Your task to perform on an android device: toggle wifi Image 0: 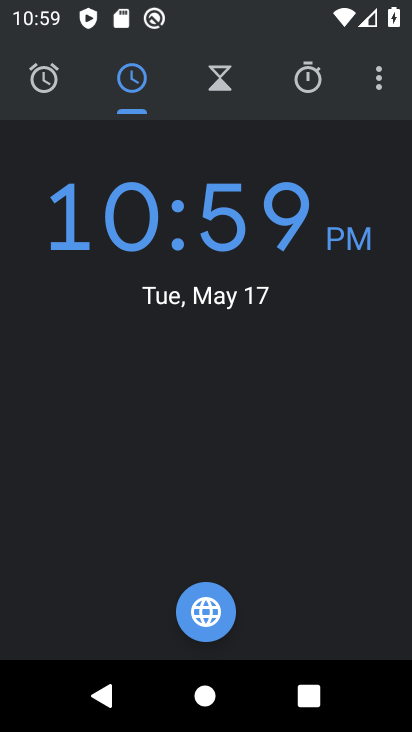
Step 0: press home button
Your task to perform on an android device: toggle wifi Image 1: 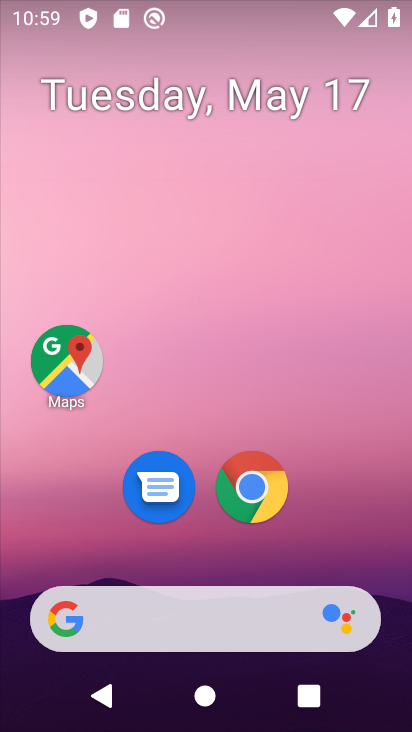
Step 1: drag from (327, 0) to (114, 666)
Your task to perform on an android device: toggle wifi Image 2: 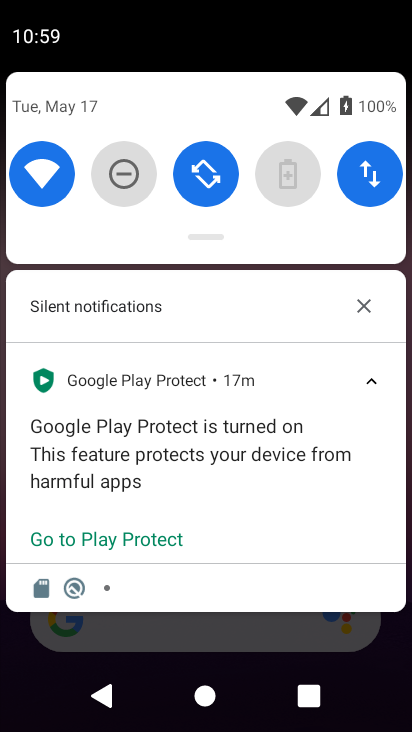
Step 2: click (47, 177)
Your task to perform on an android device: toggle wifi Image 3: 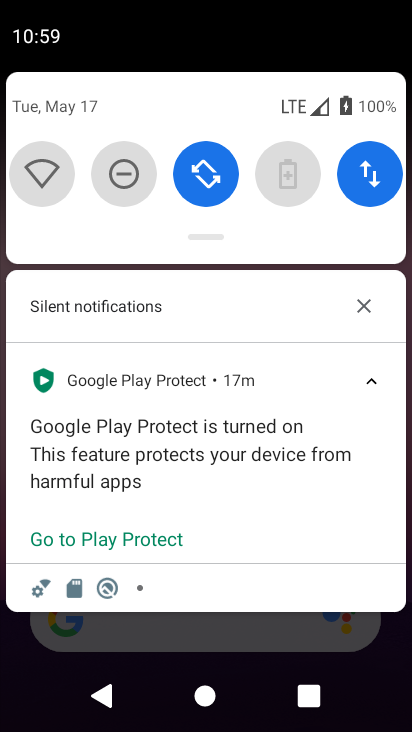
Step 3: task complete